Your task to perform on an android device: see sites visited before in the chrome app Image 0: 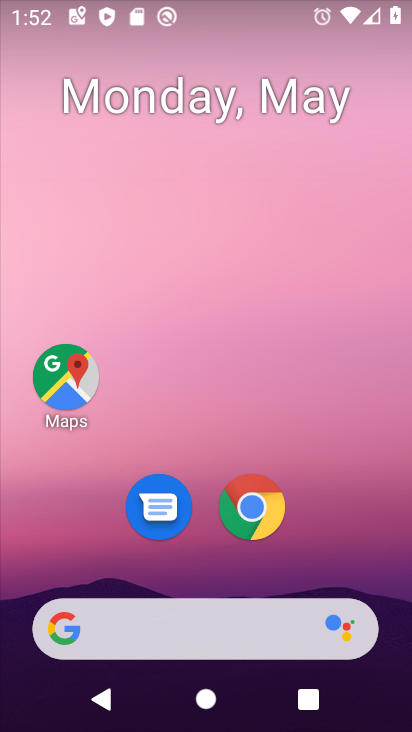
Step 0: click (250, 510)
Your task to perform on an android device: see sites visited before in the chrome app Image 1: 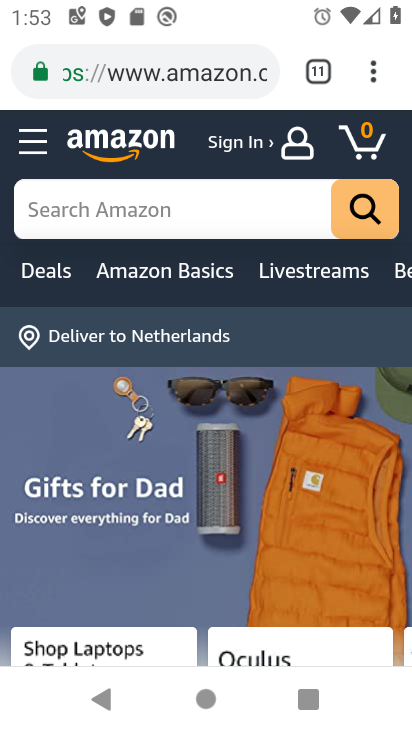
Step 1: click (371, 75)
Your task to perform on an android device: see sites visited before in the chrome app Image 2: 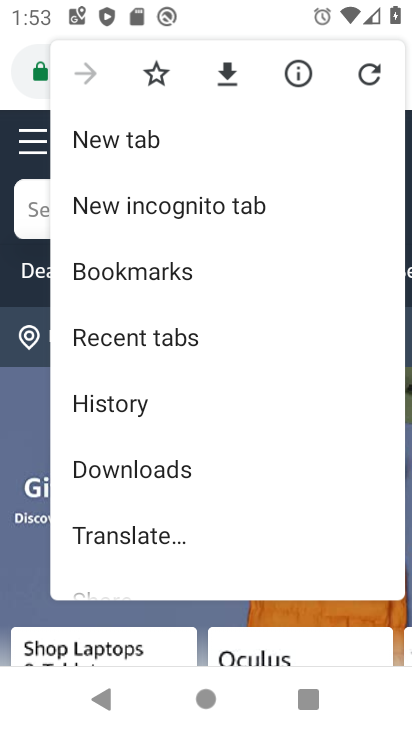
Step 2: click (113, 405)
Your task to perform on an android device: see sites visited before in the chrome app Image 3: 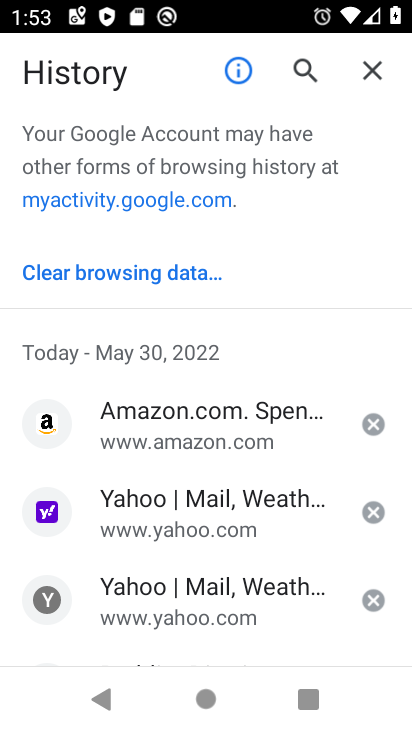
Step 3: task complete